Your task to perform on an android device: turn off airplane mode Image 0: 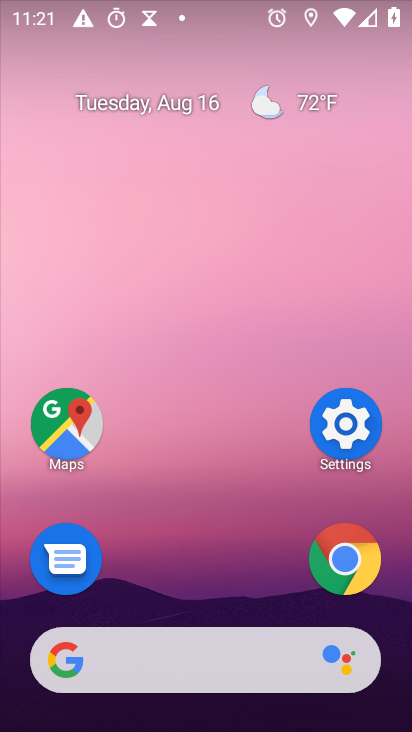
Step 0: click (350, 416)
Your task to perform on an android device: turn off airplane mode Image 1: 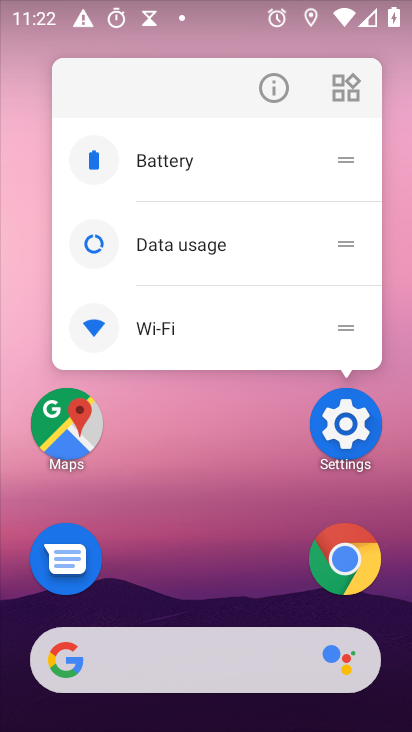
Step 1: click (338, 436)
Your task to perform on an android device: turn off airplane mode Image 2: 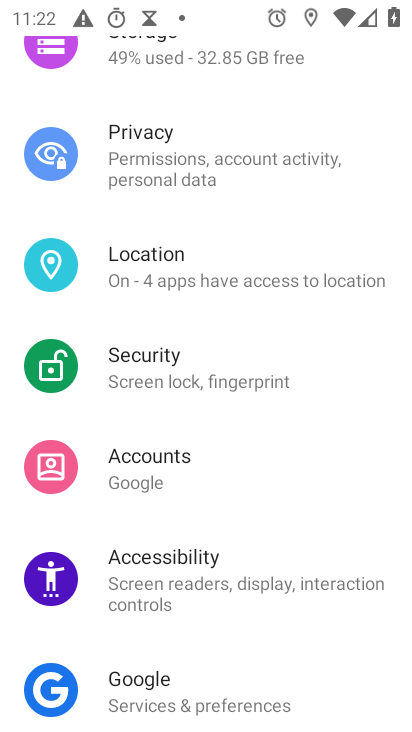
Step 2: drag from (342, 90) to (328, 569)
Your task to perform on an android device: turn off airplane mode Image 3: 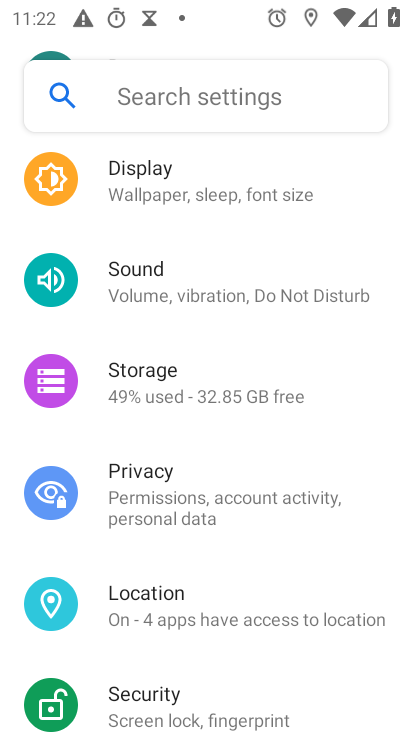
Step 3: drag from (350, 188) to (326, 613)
Your task to perform on an android device: turn off airplane mode Image 4: 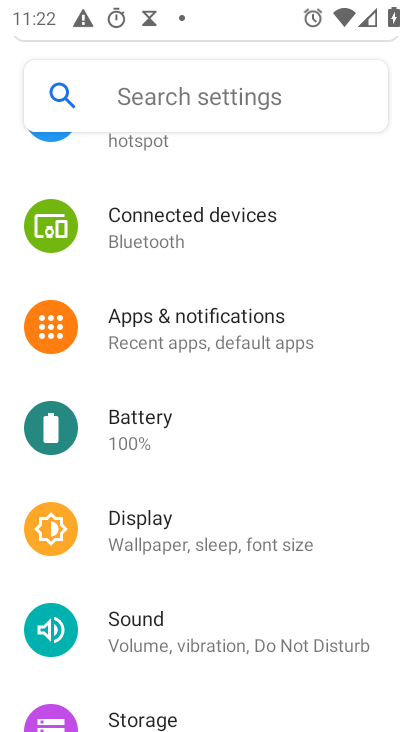
Step 4: drag from (333, 183) to (265, 622)
Your task to perform on an android device: turn off airplane mode Image 5: 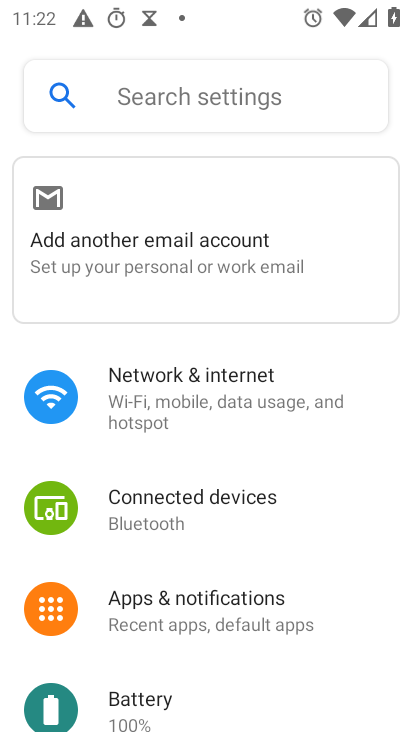
Step 5: click (190, 394)
Your task to perform on an android device: turn off airplane mode Image 6: 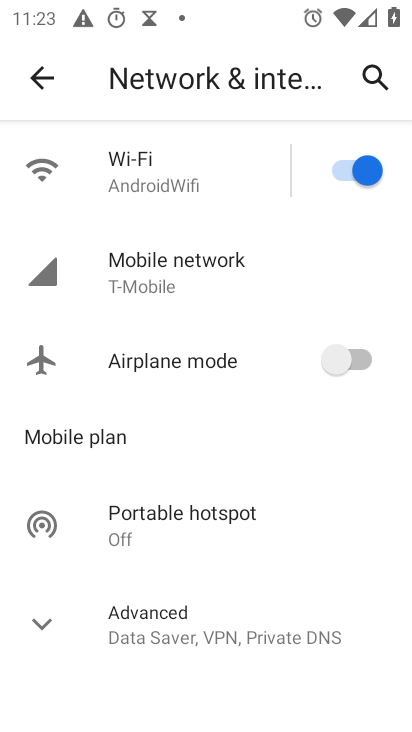
Step 6: task complete